Your task to perform on an android device: allow cookies in the chrome app Image 0: 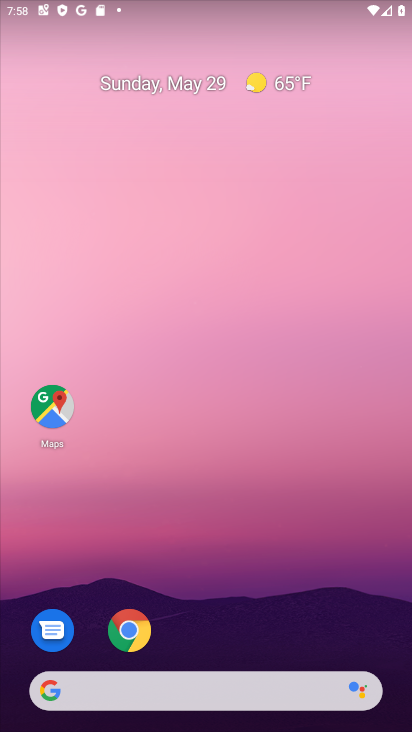
Step 0: click (126, 633)
Your task to perform on an android device: allow cookies in the chrome app Image 1: 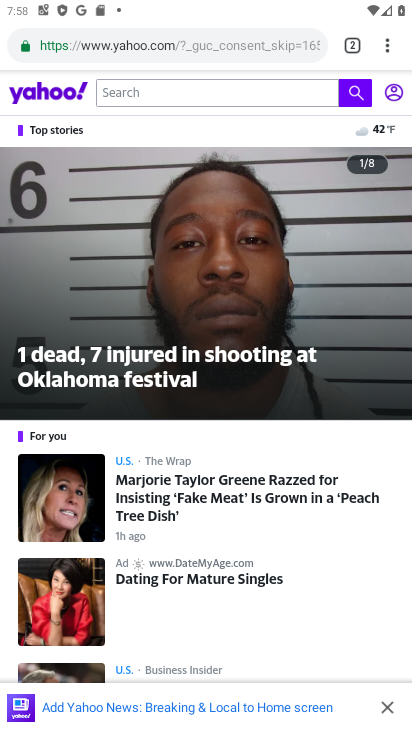
Step 1: click (387, 50)
Your task to perform on an android device: allow cookies in the chrome app Image 2: 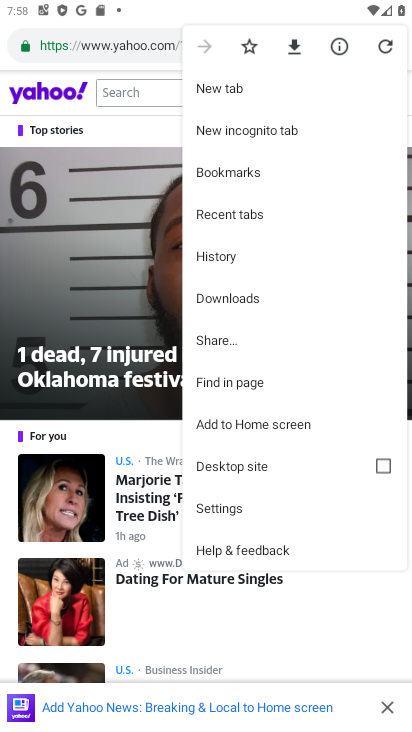
Step 2: click (221, 510)
Your task to perform on an android device: allow cookies in the chrome app Image 3: 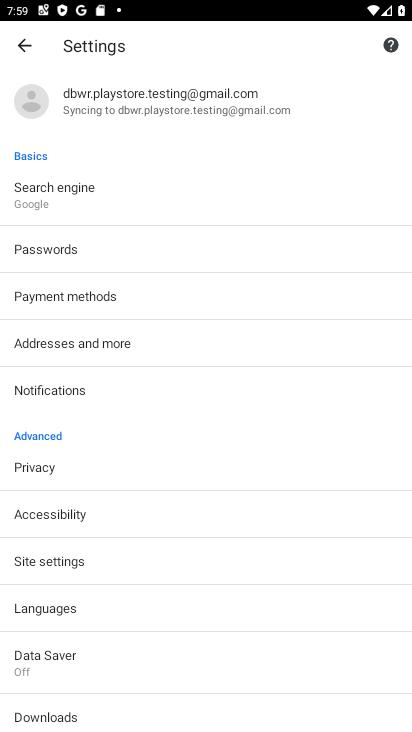
Step 3: click (57, 560)
Your task to perform on an android device: allow cookies in the chrome app Image 4: 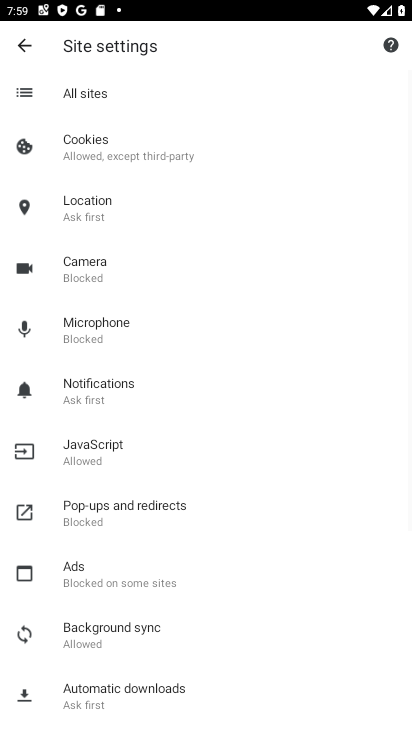
Step 4: click (83, 156)
Your task to perform on an android device: allow cookies in the chrome app Image 5: 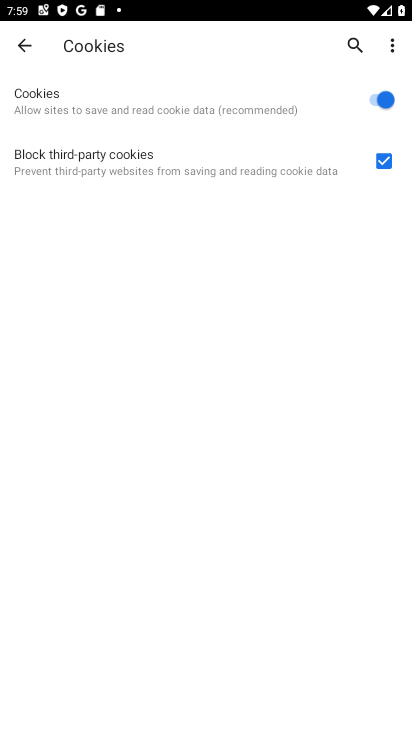
Step 5: task complete